Your task to perform on an android device: toggle data saver in the chrome app Image 0: 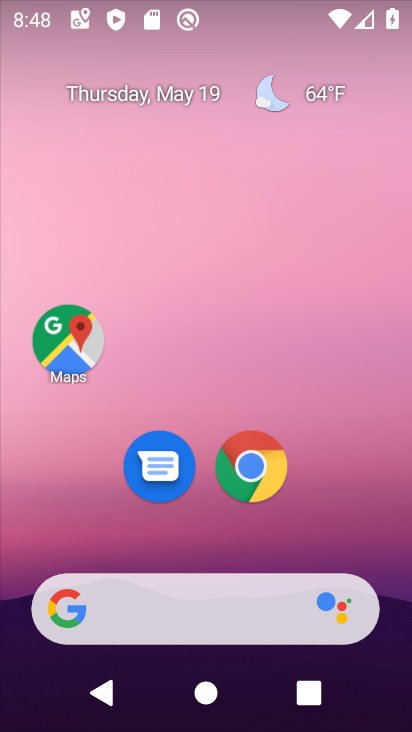
Step 0: drag from (392, 617) to (360, 176)
Your task to perform on an android device: toggle data saver in the chrome app Image 1: 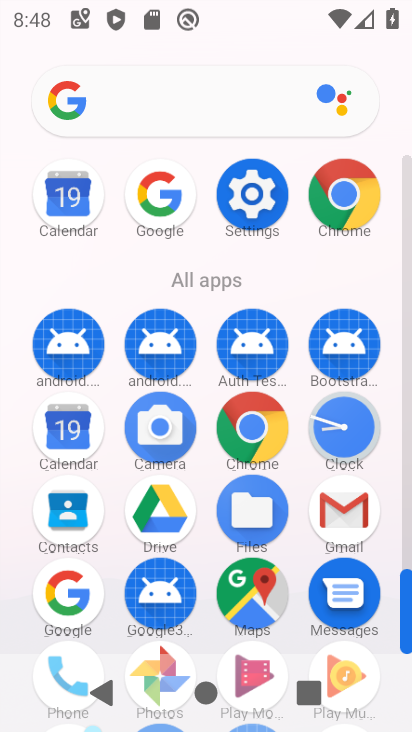
Step 1: click (341, 210)
Your task to perform on an android device: toggle data saver in the chrome app Image 2: 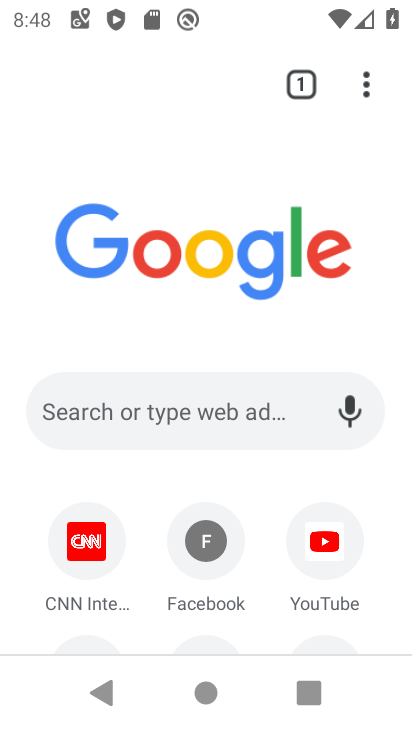
Step 2: click (369, 86)
Your task to perform on an android device: toggle data saver in the chrome app Image 3: 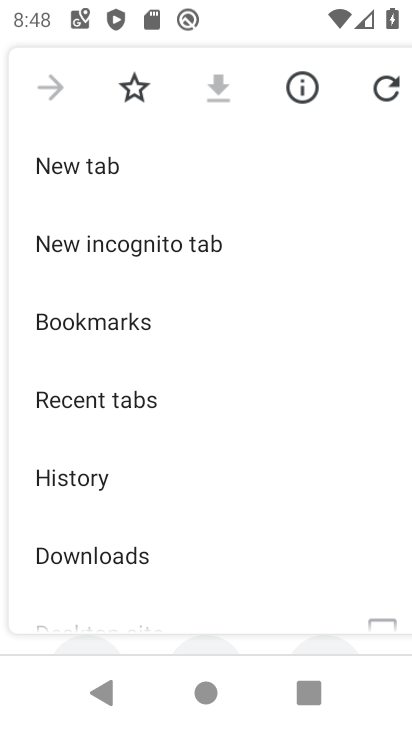
Step 3: drag from (165, 549) to (224, 193)
Your task to perform on an android device: toggle data saver in the chrome app Image 4: 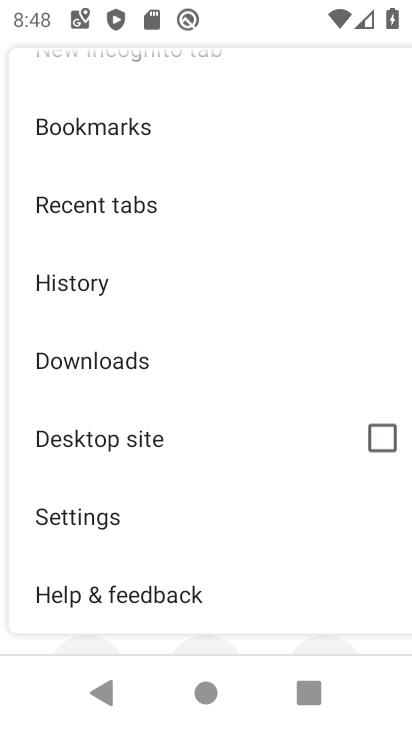
Step 4: click (195, 510)
Your task to perform on an android device: toggle data saver in the chrome app Image 5: 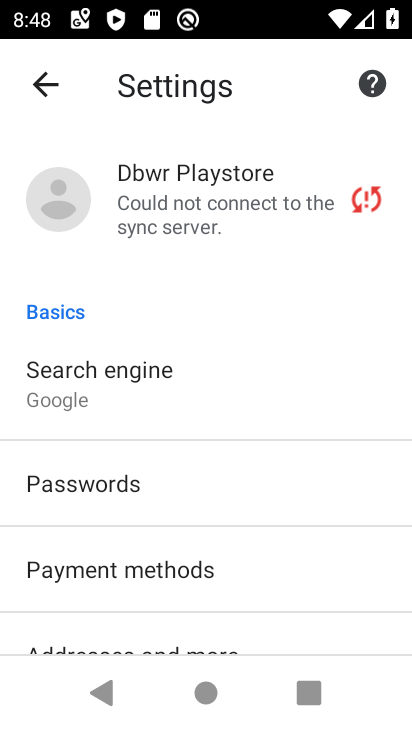
Step 5: drag from (112, 580) to (241, 177)
Your task to perform on an android device: toggle data saver in the chrome app Image 6: 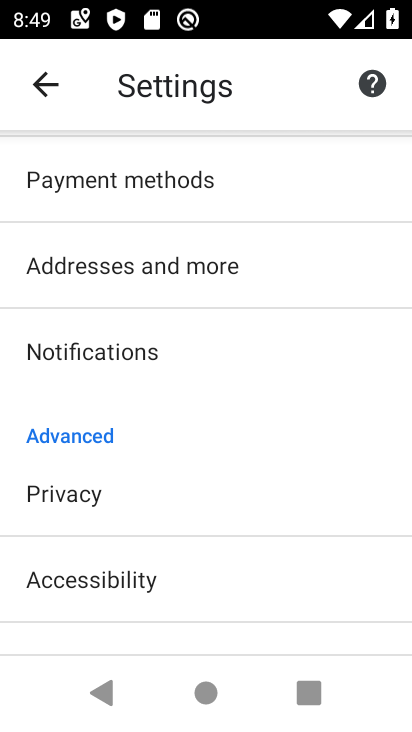
Step 6: drag from (125, 612) to (250, 200)
Your task to perform on an android device: toggle data saver in the chrome app Image 7: 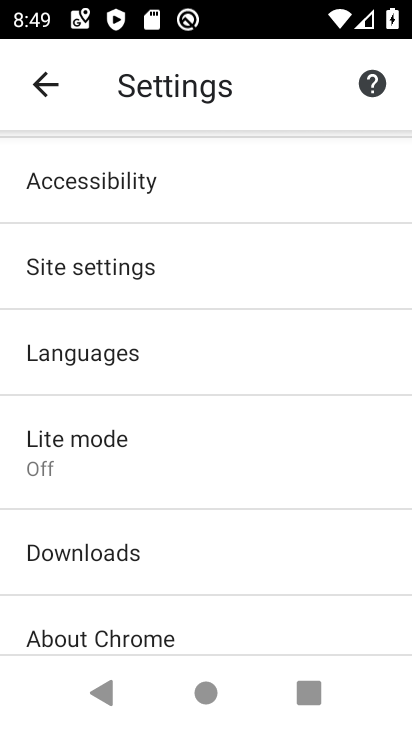
Step 7: click (89, 446)
Your task to perform on an android device: toggle data saver in the chrome app Image 8: 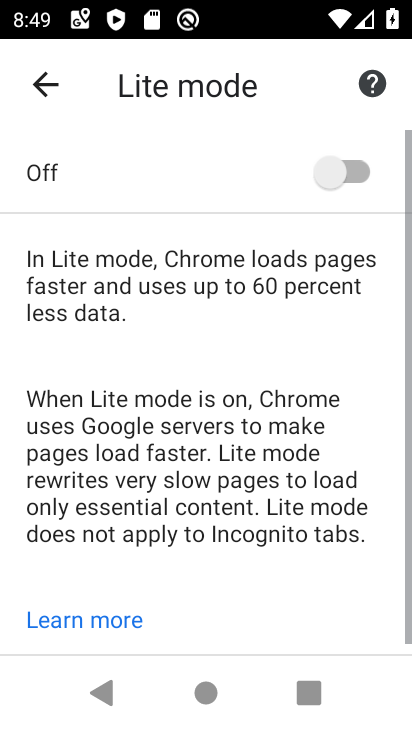
Step 8: click (309, 176)
Your task to perform on an android device: toggle data saver in the chrome app Image 9: 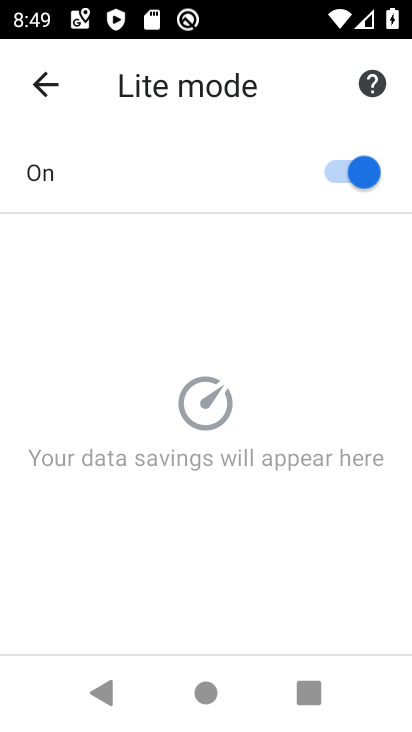
Step 9: task complete